Your task to perform on an android device: toggle show notifications on the lock screen Image 0: 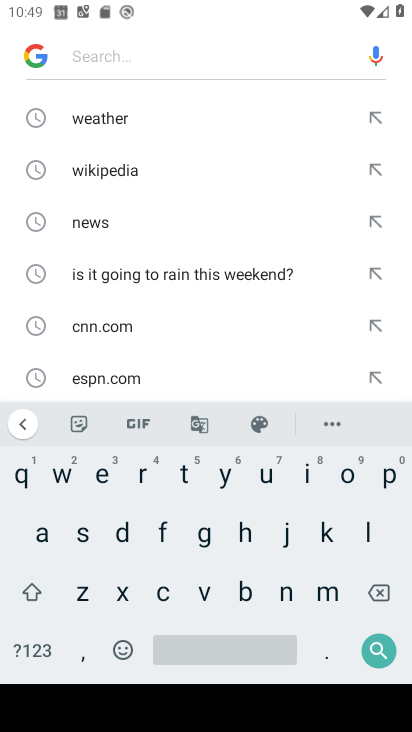
Step 0: press home button
Your task to perform on an android device: toggle show notifications on the lock screen Image 1: 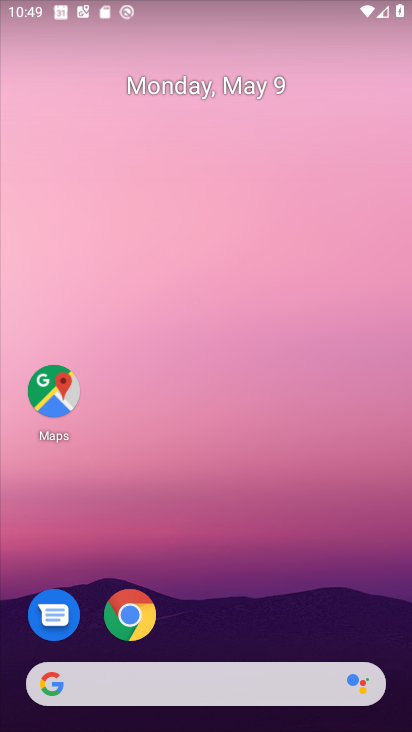
Step 1: drag from (259, 707) to (269, 198)
Your task to perform on an android device: toggle show notifications on the lock screen Image 2: 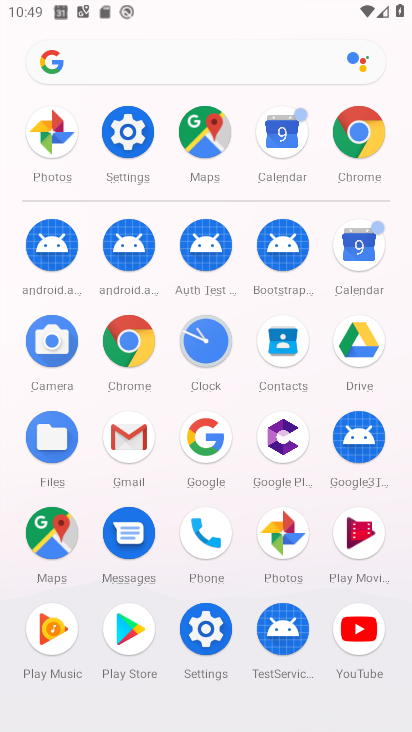
Step 2: click (193, 617)
Your task to perform on an android device: toggle show notifications on the lock screen Image 3: 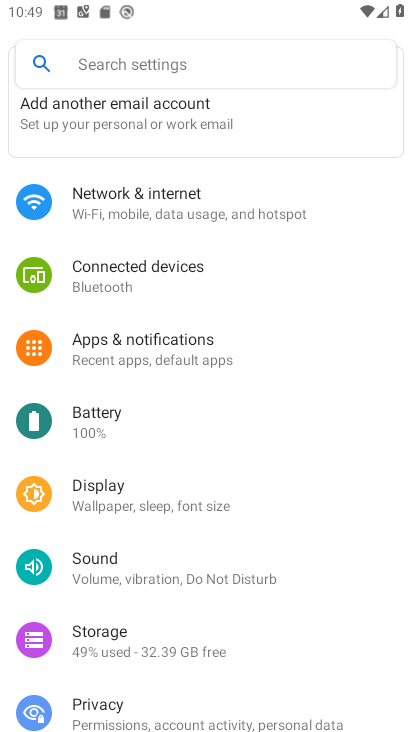
Step 3: click (164, 70)
Your task to perform on an android device: toggle show notifications on the lock screen Image 4: 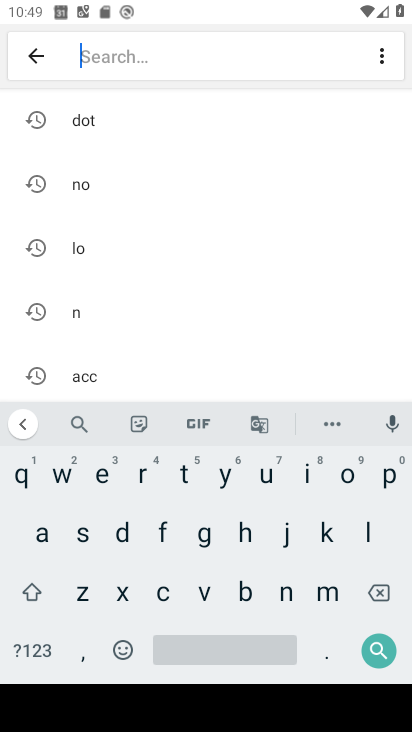
Step 4: click (115, 186)
Your task to perform on an android device: toggle show notifications on the lock screen Image 5: 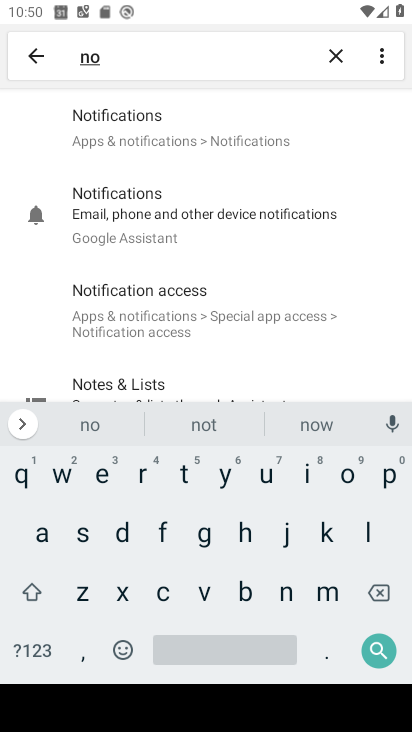
Step 5: click (139, 107)
Your task to perform on an android device: toggle show notifications on the lock screen Image 6: 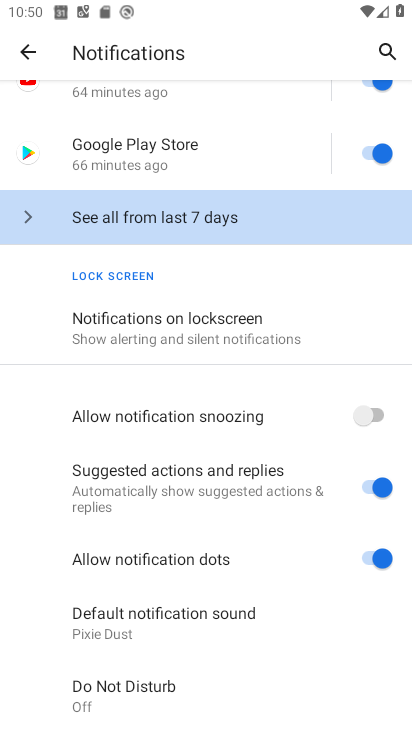
Step 6: click (166, 341)
Your task to perform on an android device: toggle show notifications on the lock screen Image 7: 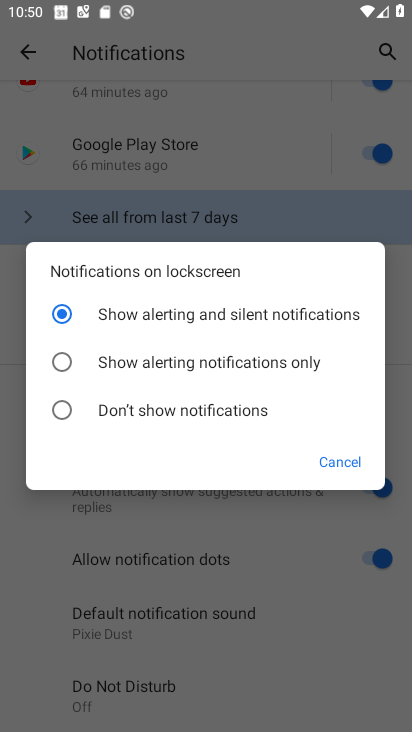
Step 7: task complete